Your task to perform on an android device: Empty the shopping cart on ebay.com. Image 0: 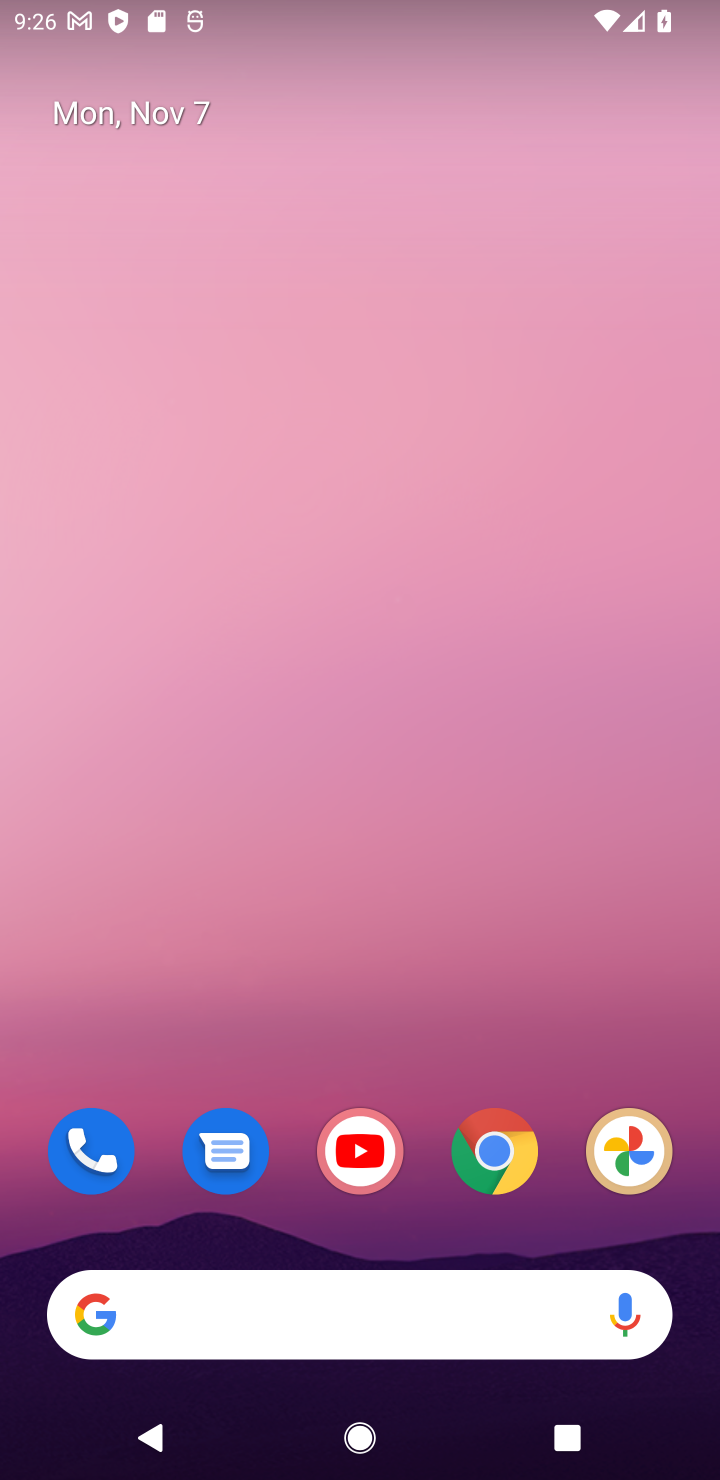
Step 0: press home button
Your task to perform on an android device: Empty the shopping cart on ebay.com. Image 1: 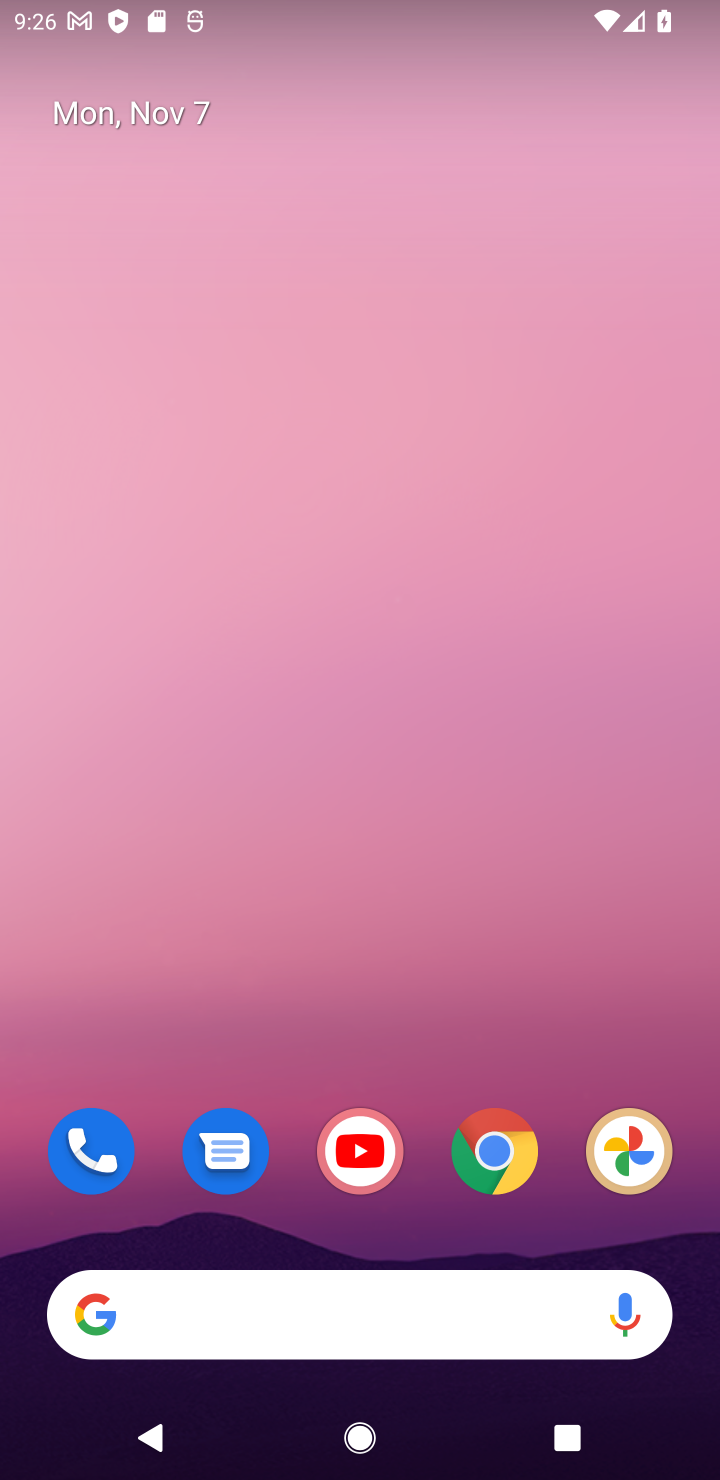
Step 1: click (498, 1156)
Your task to perform on an android device: Empty the shopping cart on ebay.com. Image 2: 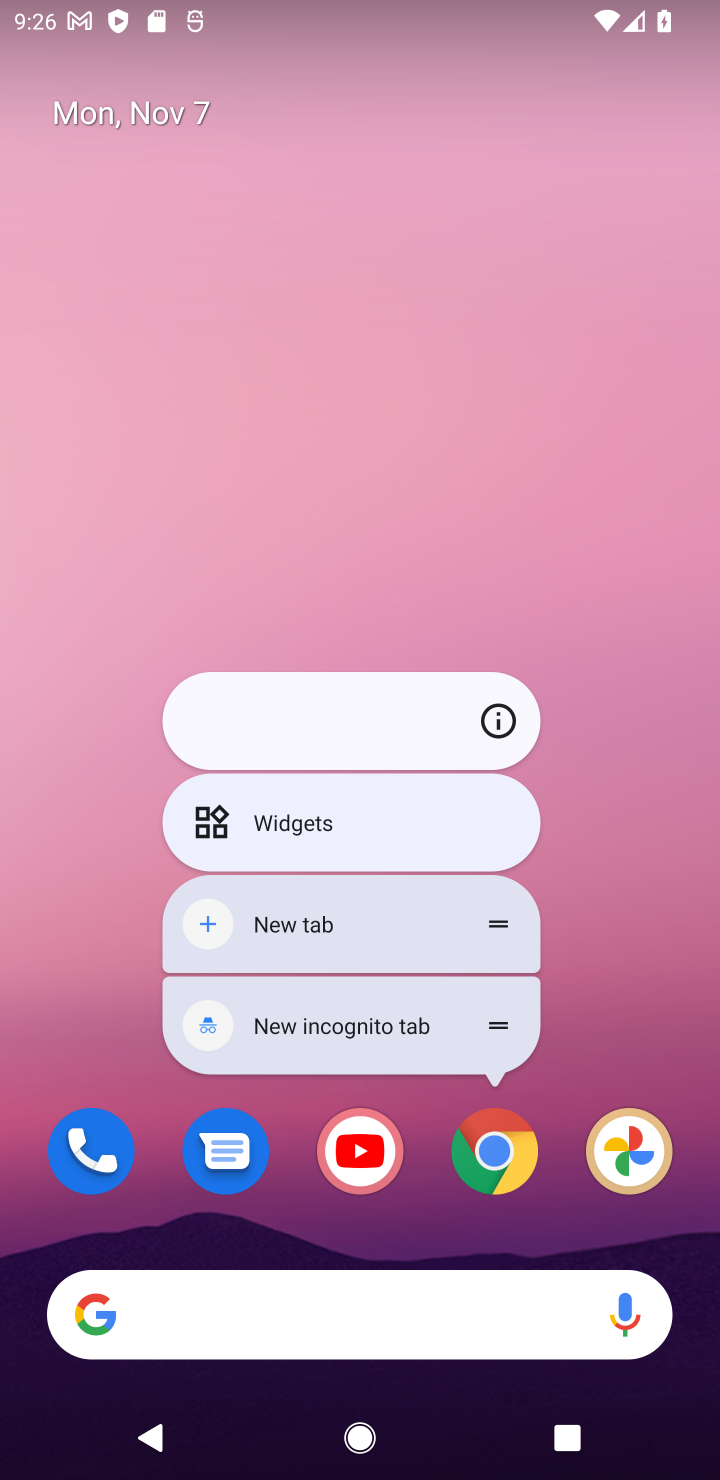
Step 2: click (509, 1165)
Your task to perform on an android device: Empty the shopping cart on ebay.com. Image 3: 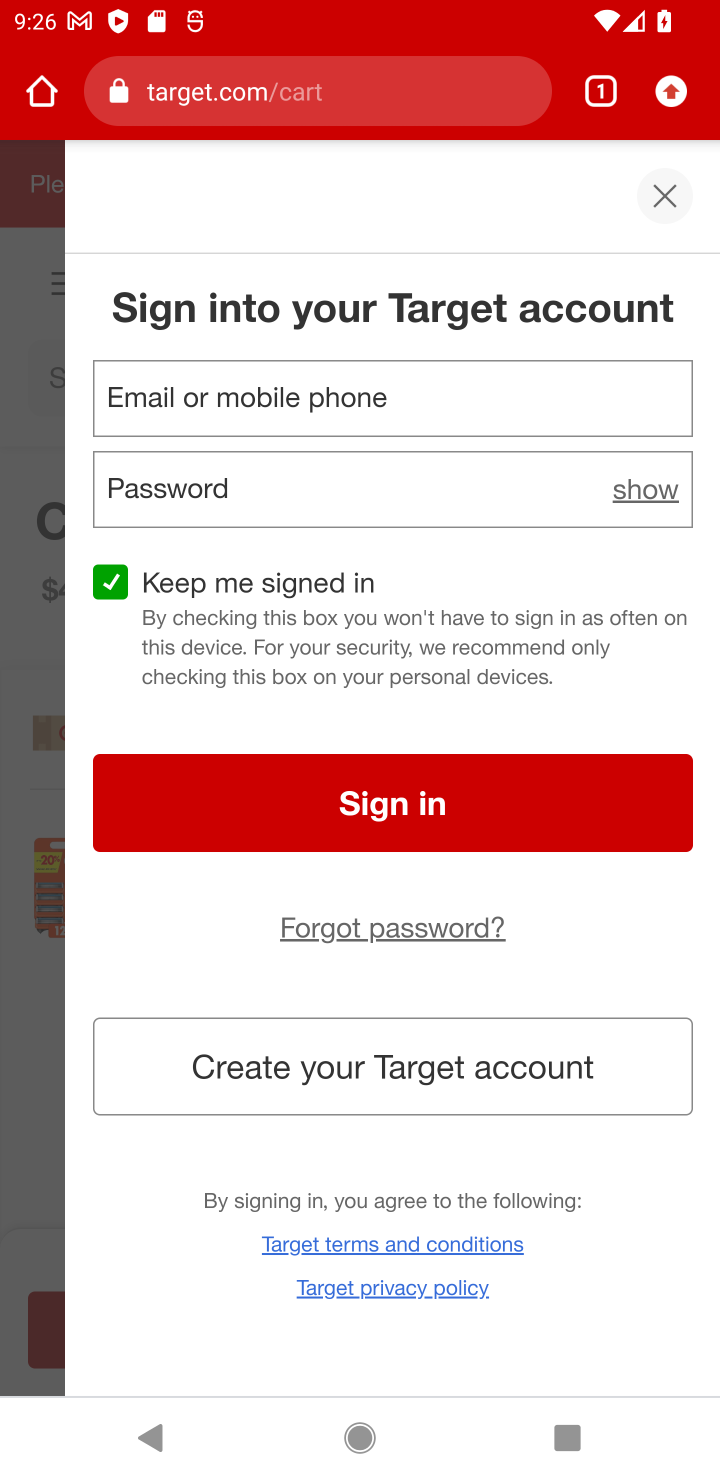
Step 3: click (314, 93)
Your task to perform on an android device: Empty the shopping cart on ebay.com. Image 4: 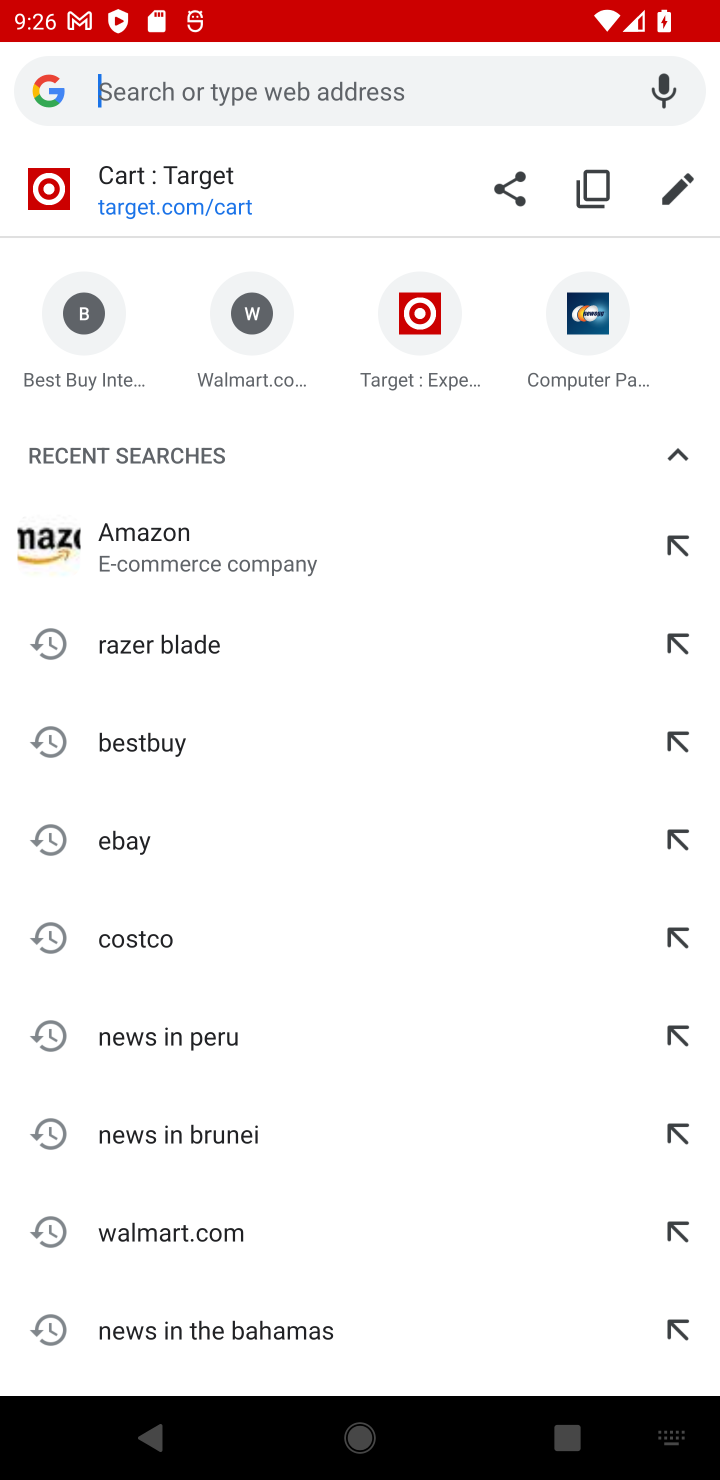
Step 4: click (116, 842)
Your task to perform on an android device: Empty the shopping cart on ebay.com. Image 5: 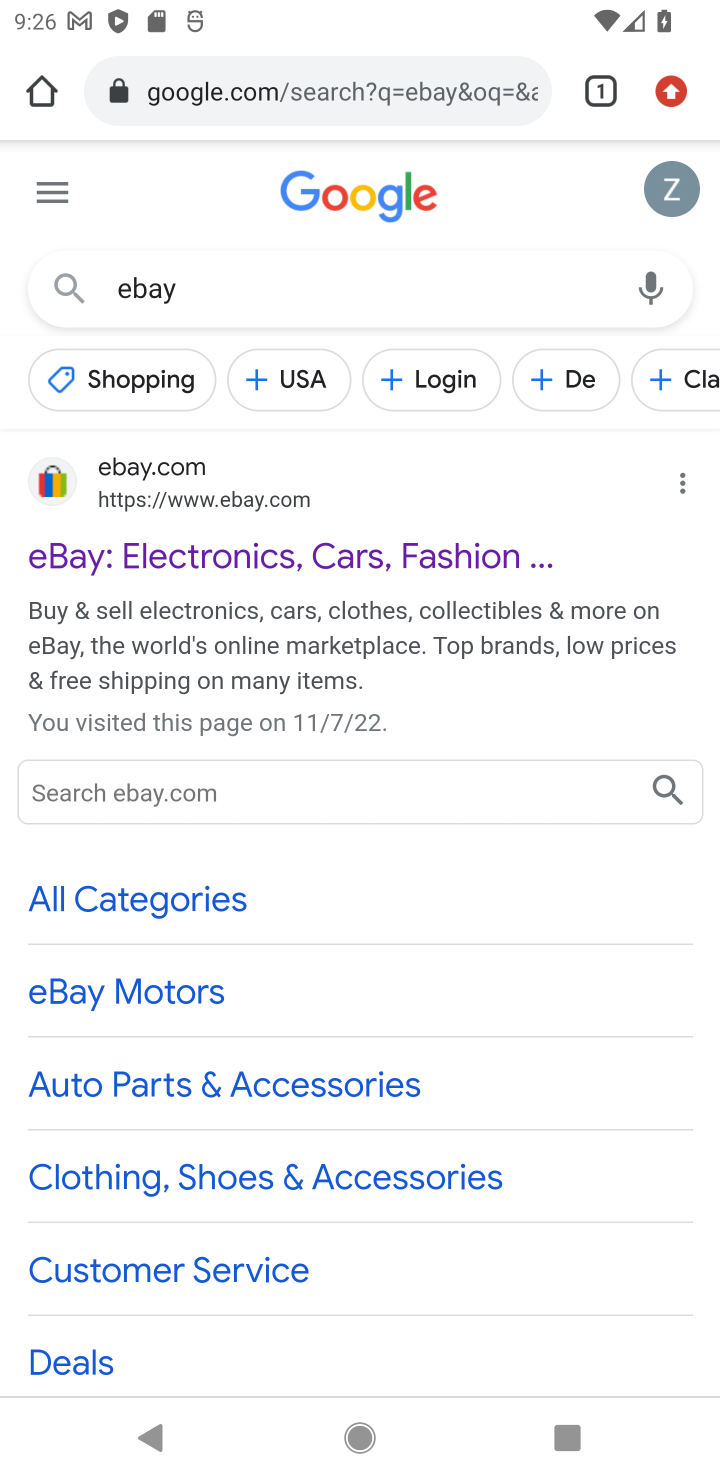
Step 5: click (218, 553)
Your task to perform on an android device: Empty the shopping cart on ebay.com. Image 6: 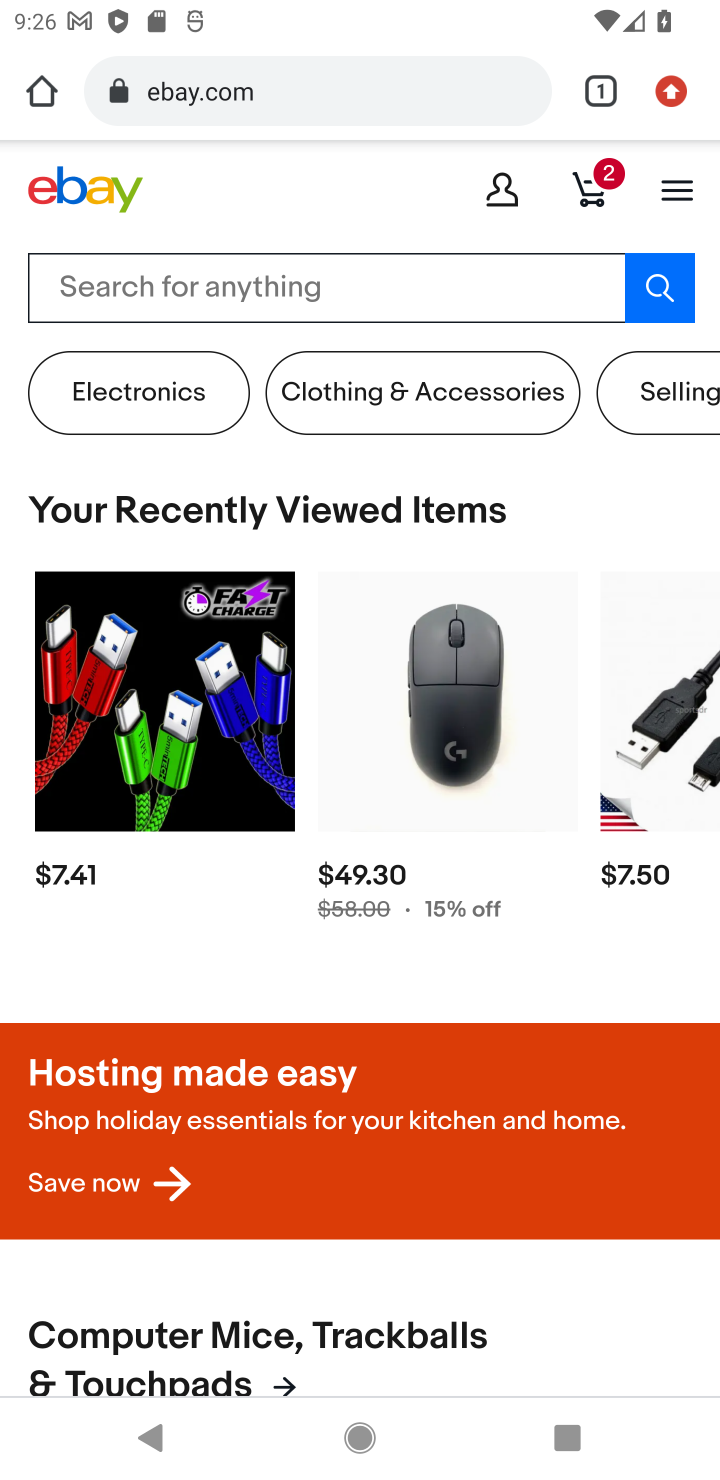
Step 6: click (593, 169)
Your task to perform on an android device: Empty the shopping cart on ebay.com. Image 7: 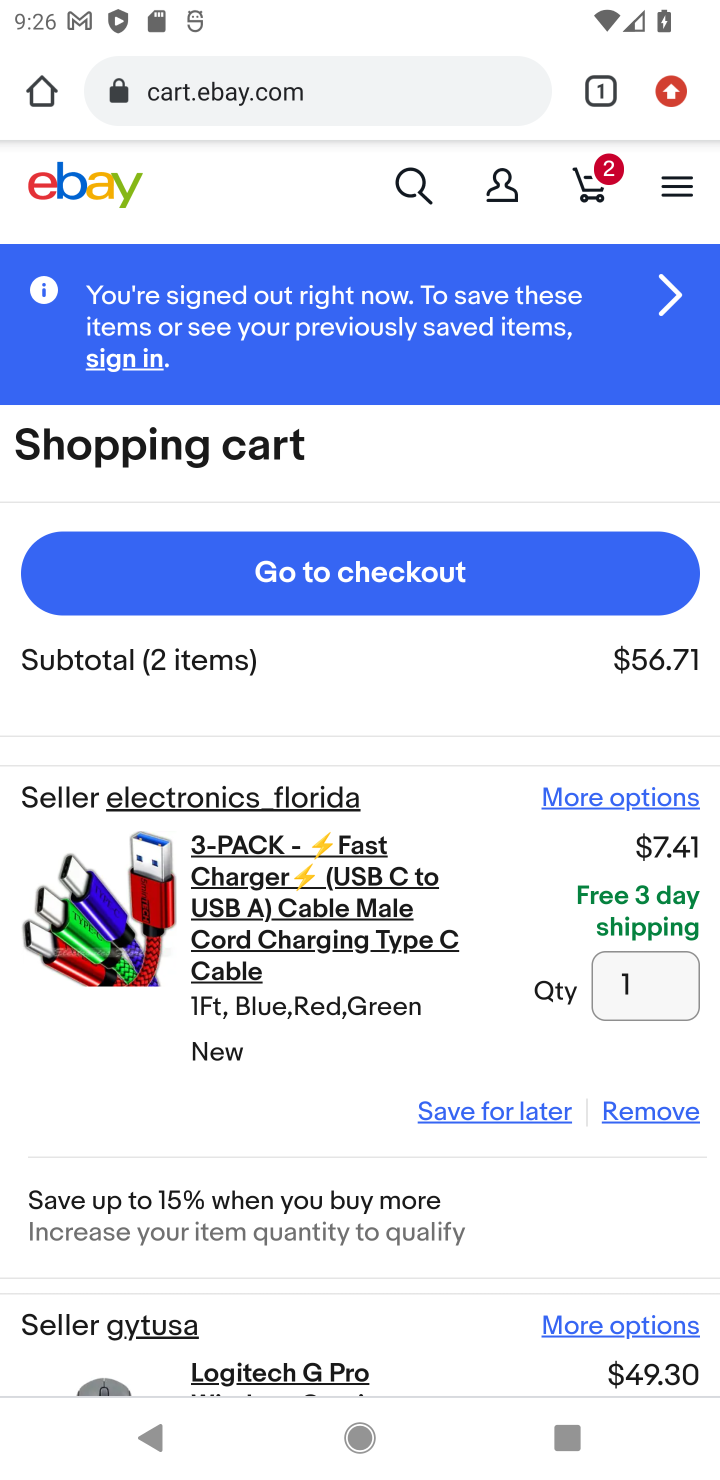
Step 7: click (638, 1108)
Your task to perform on an android device: Empty the shopping cart on ebay.com. Image 8: 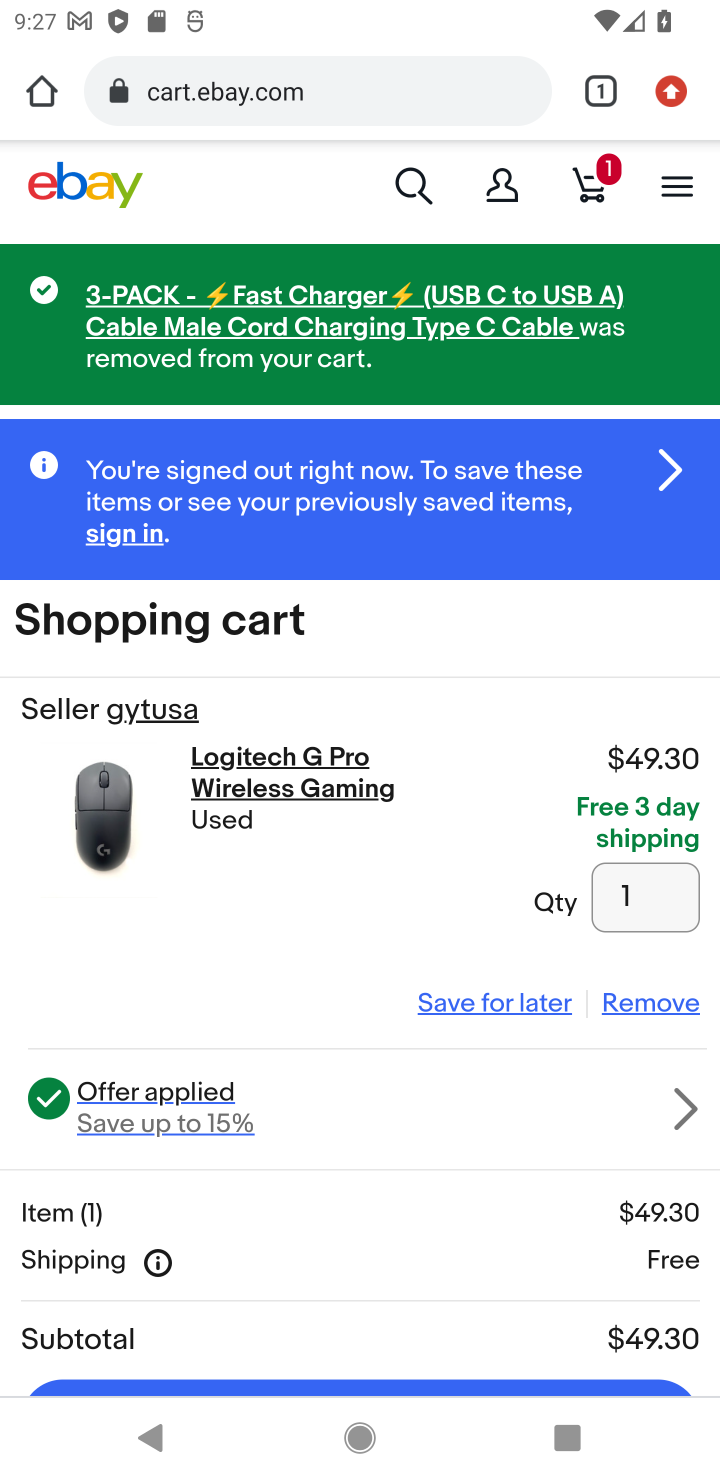
Step 8: drag from (428, 1096) to (623, 673)
Your task to perform on an android device: Empty the shopping cart on ebay.com. Image 9: 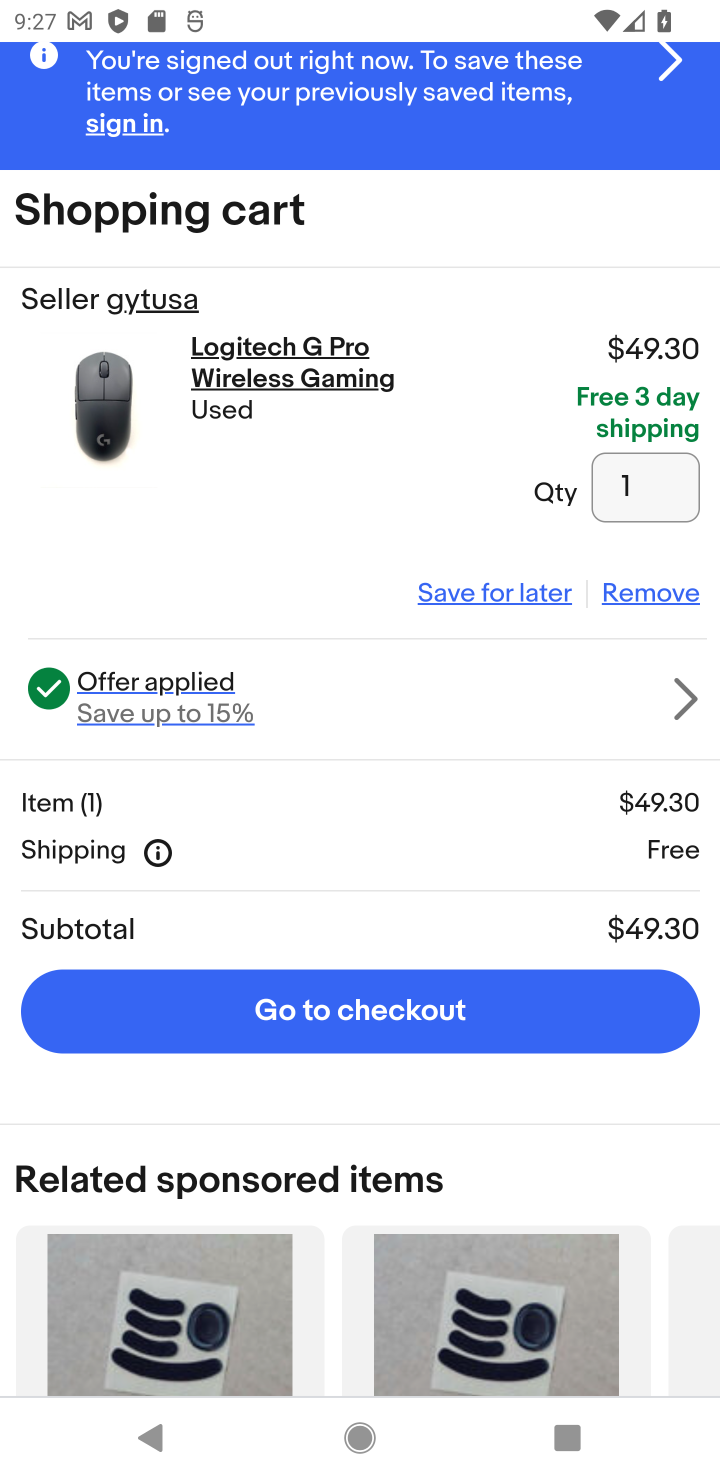
Step 9: click (675, 597)
Your task to perform on an android device: Empty the shopping cart on ebay.com. Image 10: 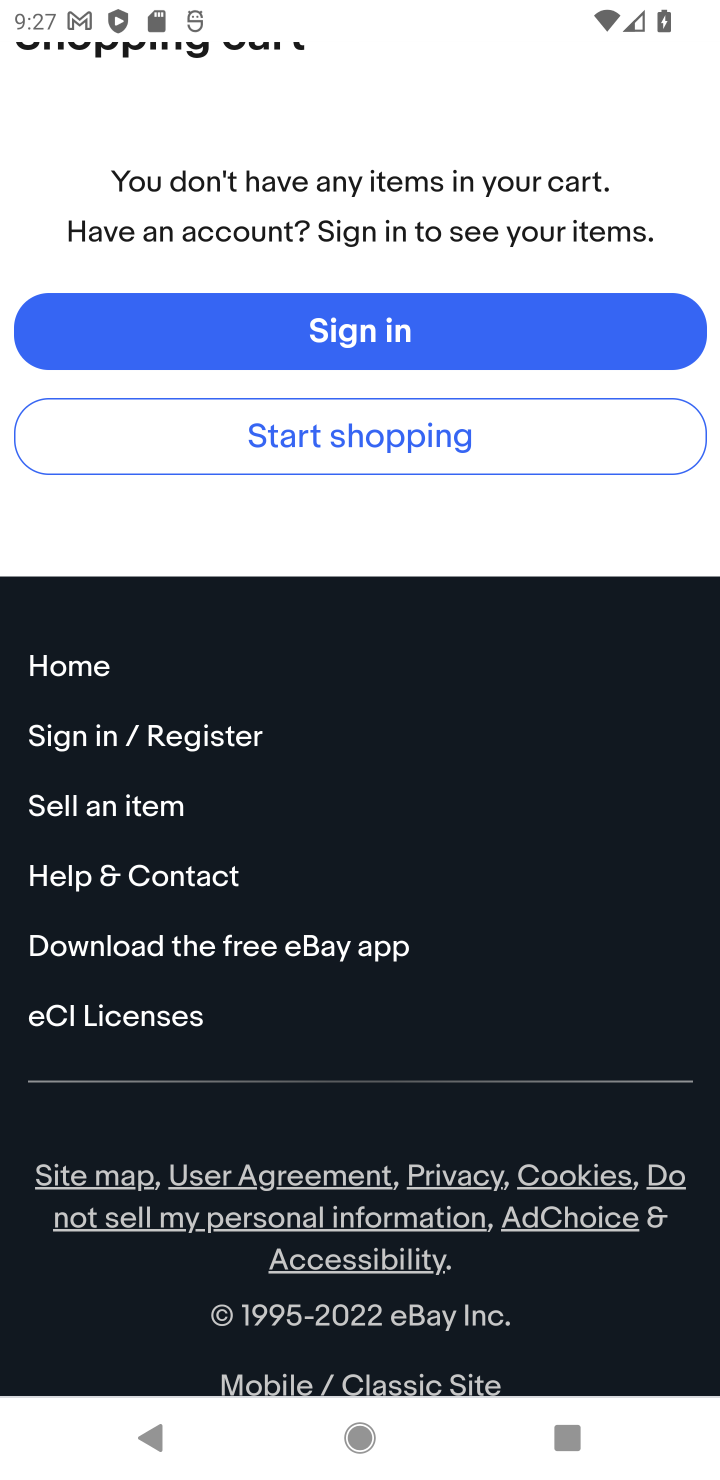
Step 10: task complete